Your task to perform on an android device: toggle location history Image 0: 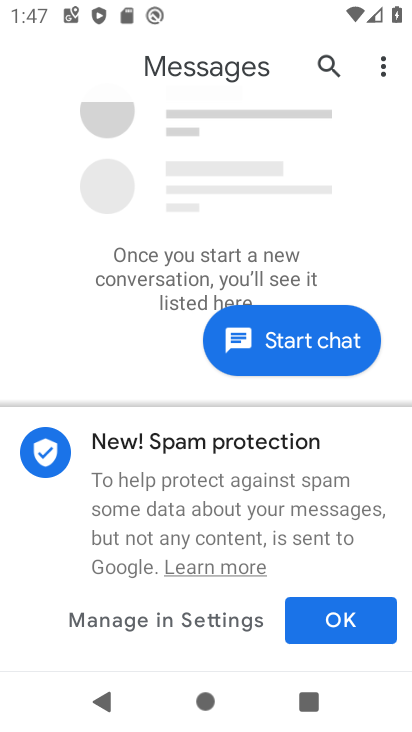
Step 0: press home button
Your task to perform on an android device: toggle location history Image 1: 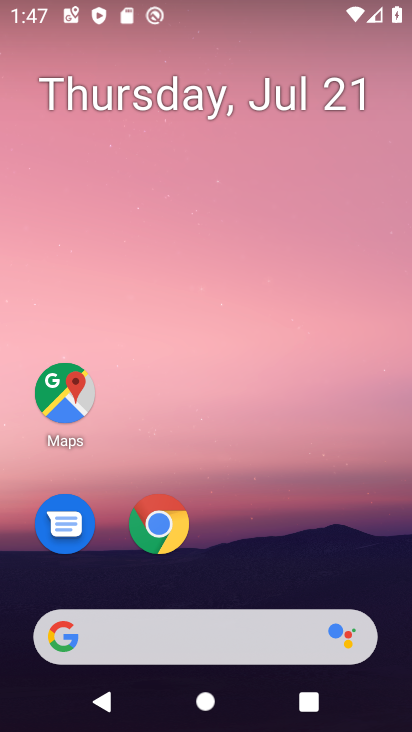
Step 1: drag from (262, 518) to (273, 38)
Your task to perform on an android device: toggle location history Image 2: 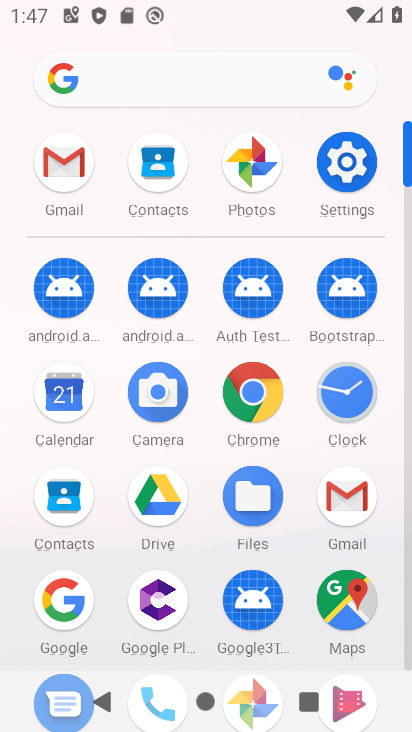
Step 2: click (344, 151)
Your task to perform on an android device: toggle location history Image 3: 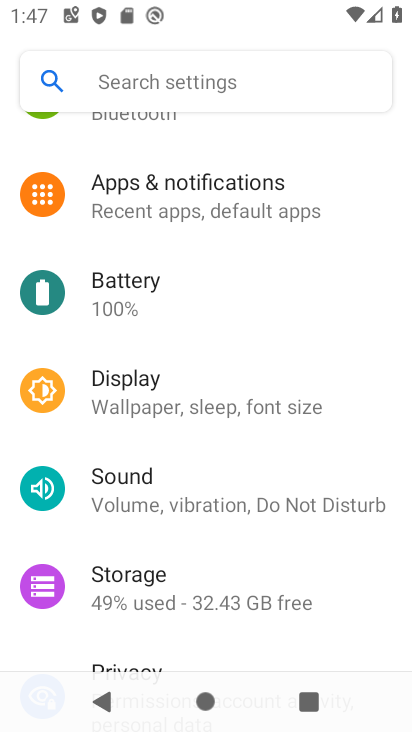
Step 3: drag from (196, 546) to (226, 125)
Your task to perform on an android device: toggle location history Image 4: 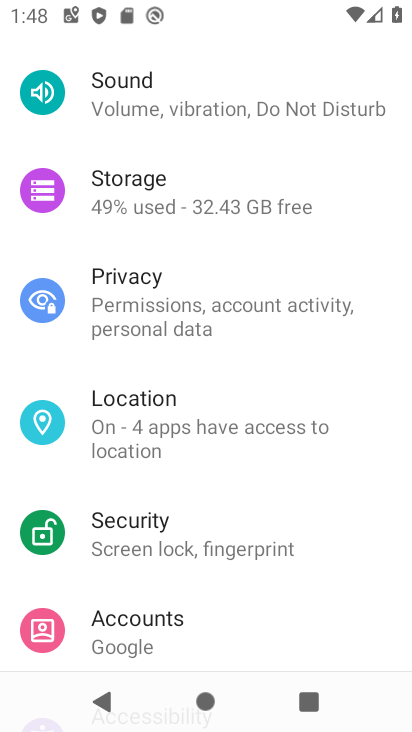
Step 4: click (217, 424)
Your task to perform on an android device: toggle location history Image 5: 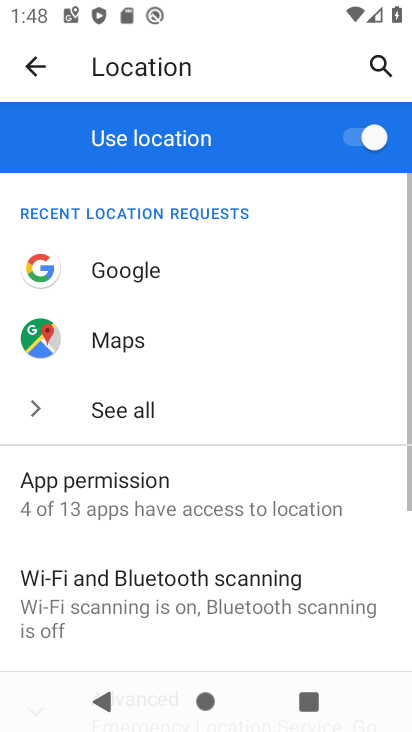
Step 5: drag from (214, 505) to (247, 34)
Your task to perform on an android device: toggle location history Image 6: 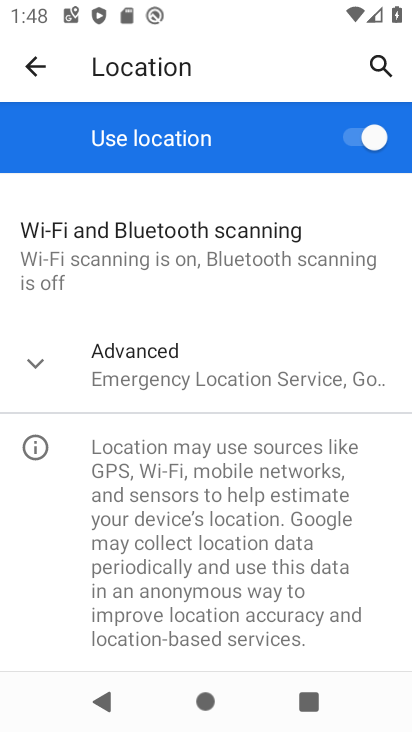
Step 6: click (35, 361)
Your task to perform on an android device: toggle location history Image 7: 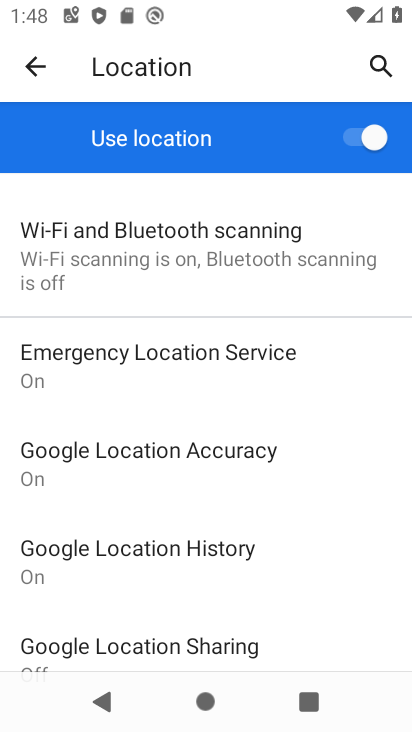
Step 7: click (203, 560)
Your task to perform on an android device: toggle location history Image 8: 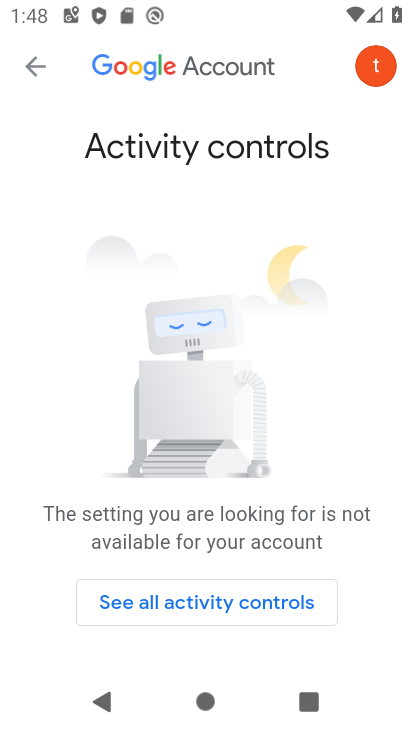
Step 8: click (232, 600)
Your task to perform on an android device: toggle location history Image 9: 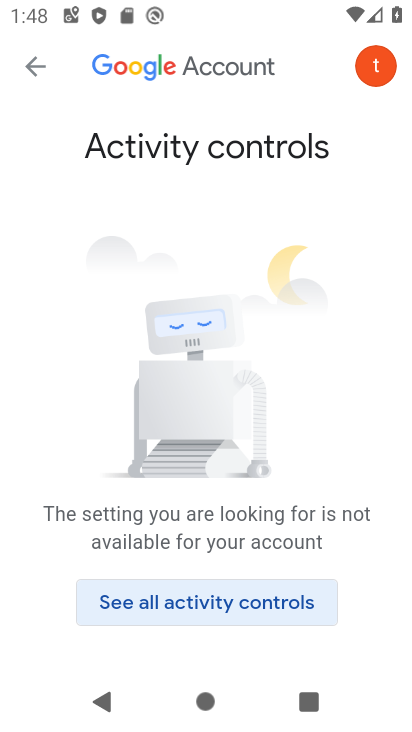
Step 9: drag from (241, 489) to (239, 201)
Your task to perform on an android device: toggle location history Image 10: 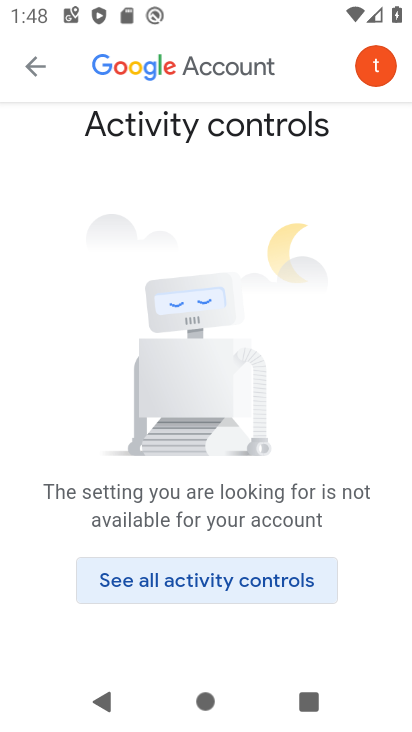
Step 10: click (261, 577)
Your task to perform on an android device: toggle location history Image 11: 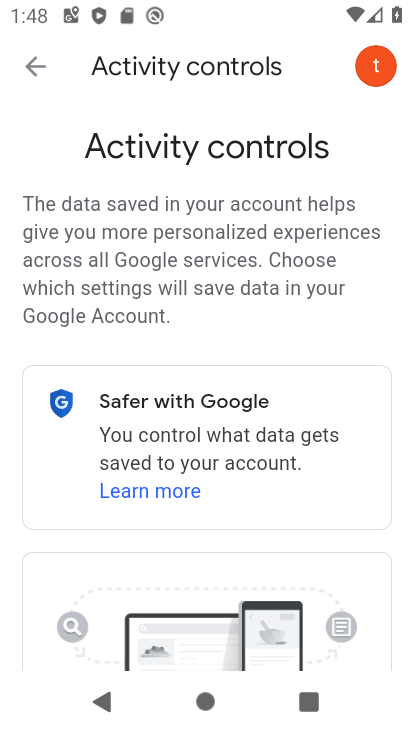
Step 11: drag from (259, 552) to (226, 212)
Your task to perform on an android device: toggle location history Image 12: 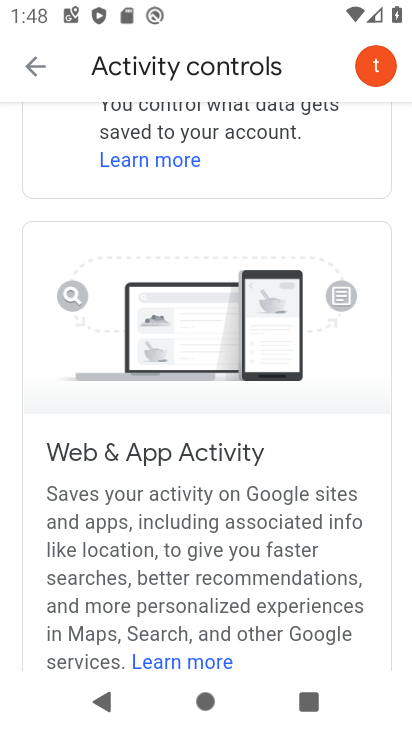
Step 12: drag from (198, 485) to (207, 111)
Your task to perform on an android device: toggle location history Image 13: 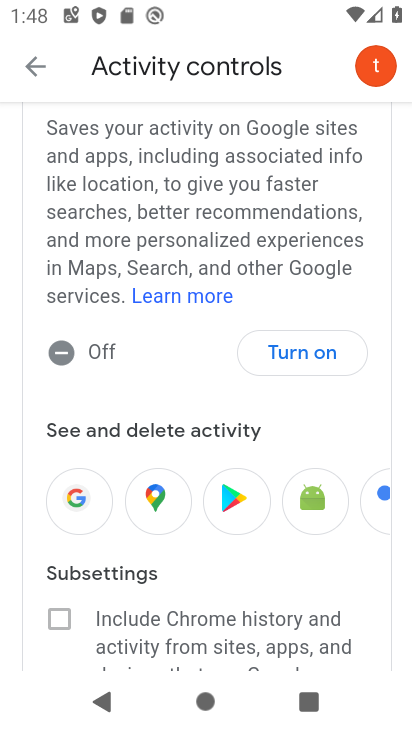
Step 13: click (267, 354)
Your task to perform on an android device: toggle location history Image 14: 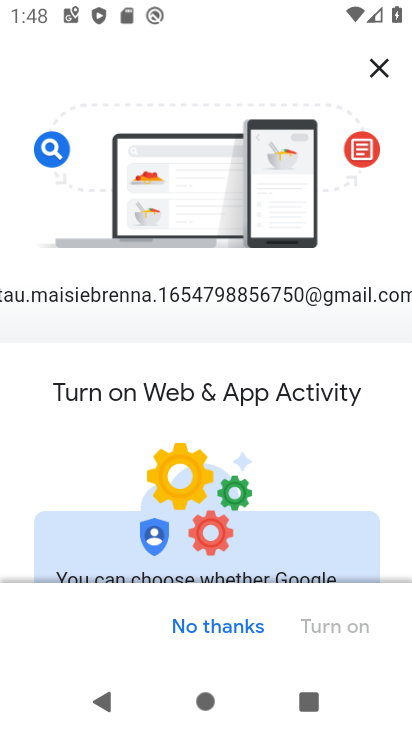
Step 14: drag from (307, 520) to (318, 190)
Your task to perform on an android device: toggle location history Image 15: 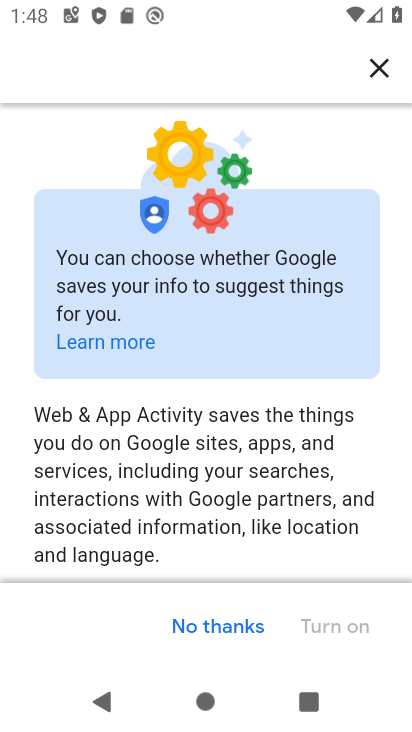
Step 15: drag from (306, 476) to (313, 123)
Your task to perform on an android device: toggle location history Image 16: 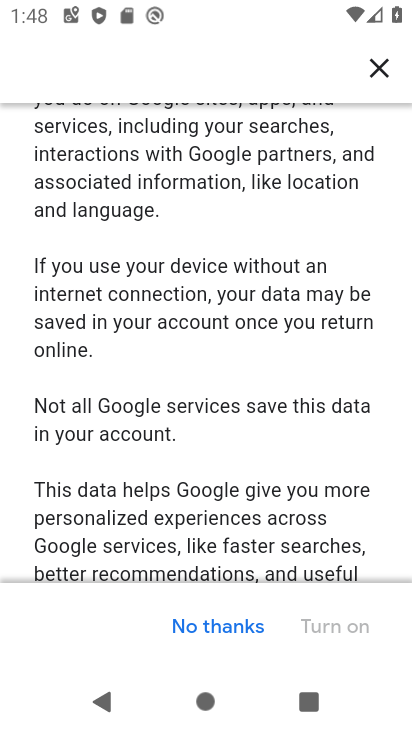
Step 16: drag from (300, 537) to (295, 84)
Your task to perform on an android device: toggle location history Image 17: 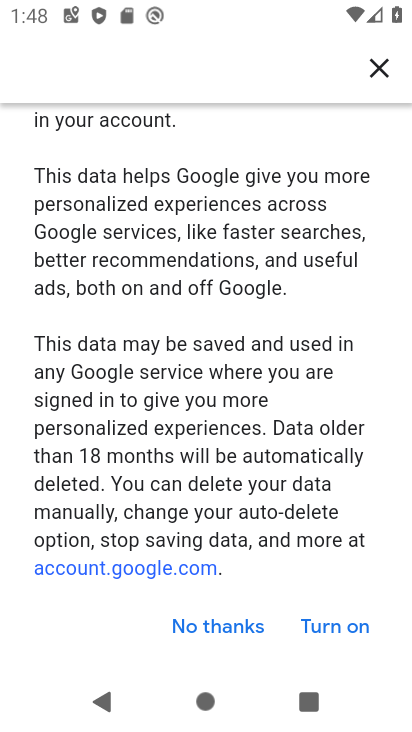
Step 17: click (343, 625)
Your task to perform on an android device: toggle location history Image 18: 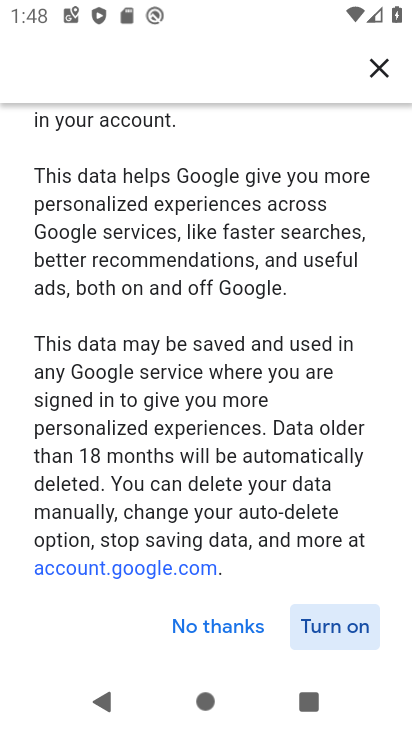
Step 18: click (343, 624)
Your task to perform on an android device: toggle location history Image 19: 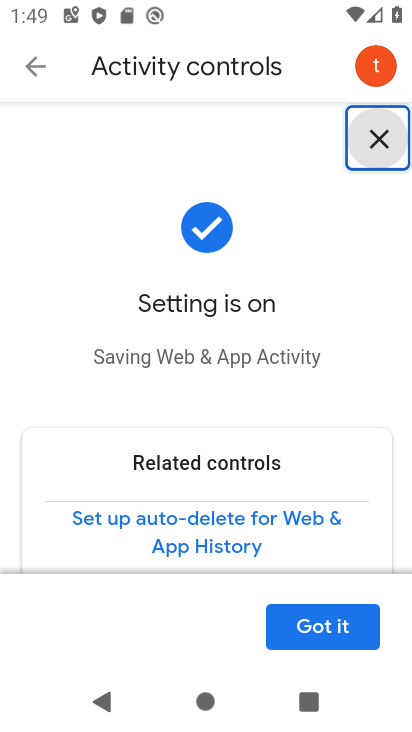
Step 19: click (343, 624)
Your task to perform on an android device: toggle location history Image 20: 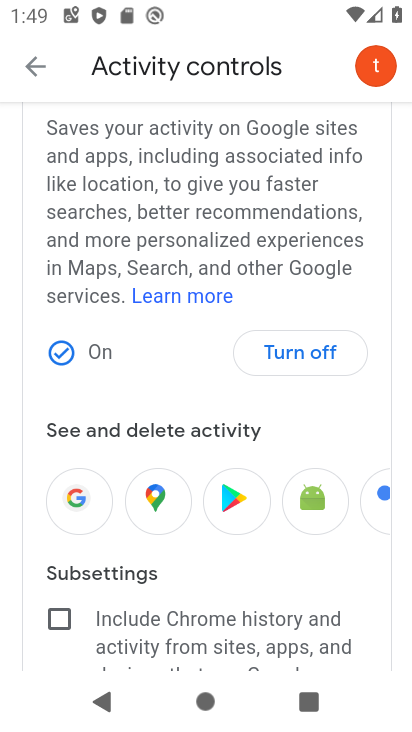
Step 20: task complete